Your task to perform on an android device: manage bookmarks in the chrome app Image 0: 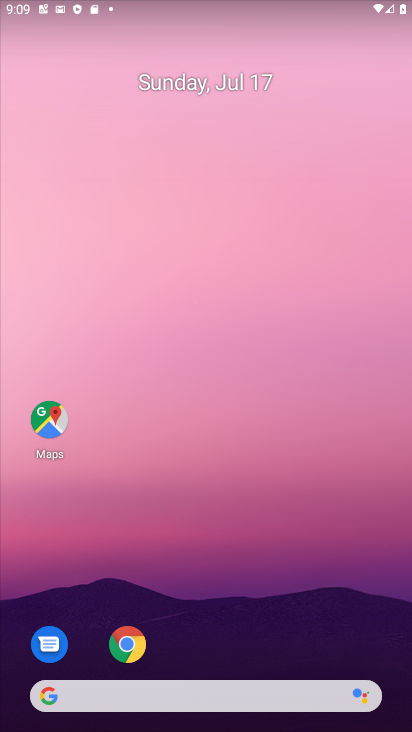
Step 0: drag from (236, 666) to (224, 48)
Your task to perform on an android device: manage bookmarks in the chrome app Image 1: 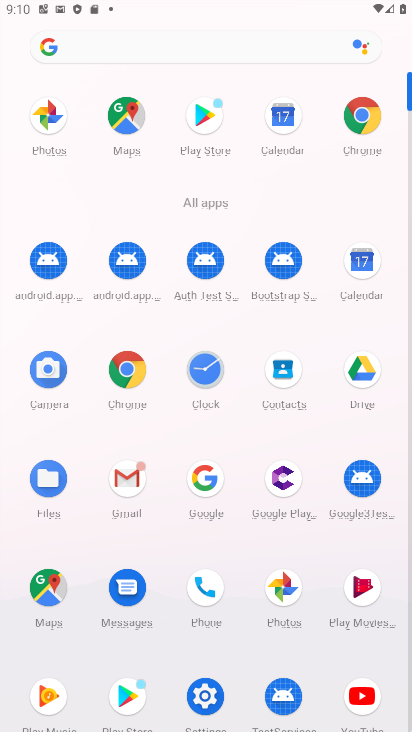
Step 1: click (118, 382)
Your task to perform on an android device: manage bookmarks in the chrome app Image 2: 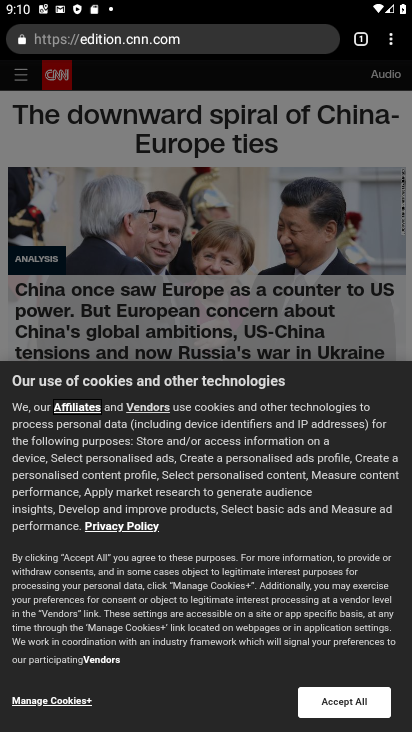
Step 2: click (387, 32)
Your task to perform on an android device: manage bookmarks in the chrome app Image 3: 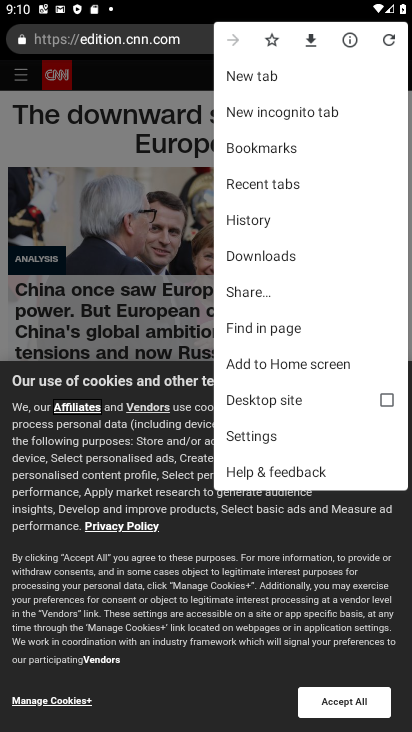
Step 3: click (243, 149)
Your task to perform on an android device: manage bookmarks in the chrome app Image 4: 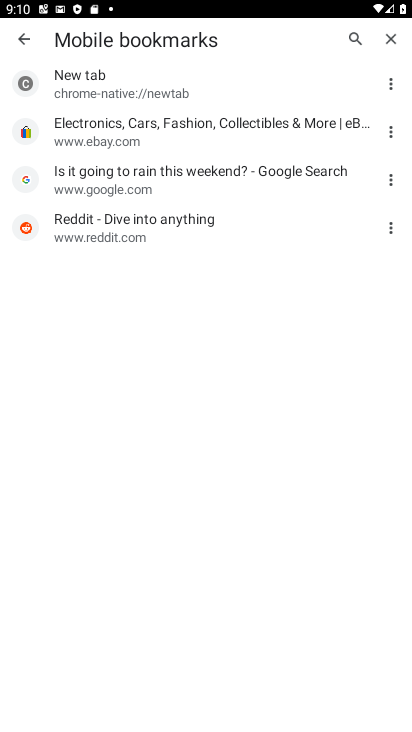
Step 4: click (387, 85)
Your task to perform on an android device: manage bookmarks in the chrome app Image 5: 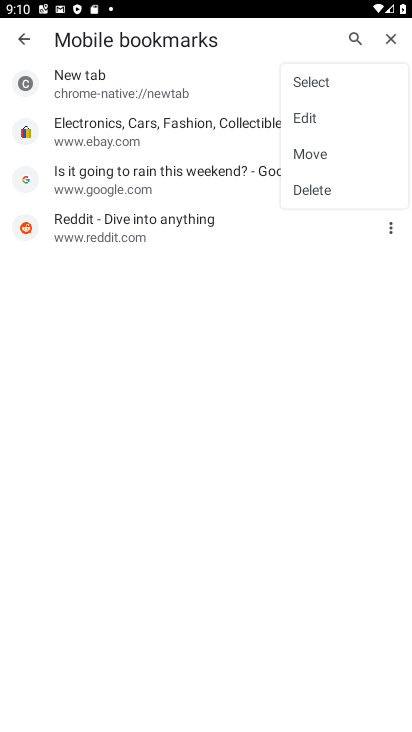
Step 5: click (310, 119)
Your task to perform on an android device: manage bookmarks in the chrome app Image 6: 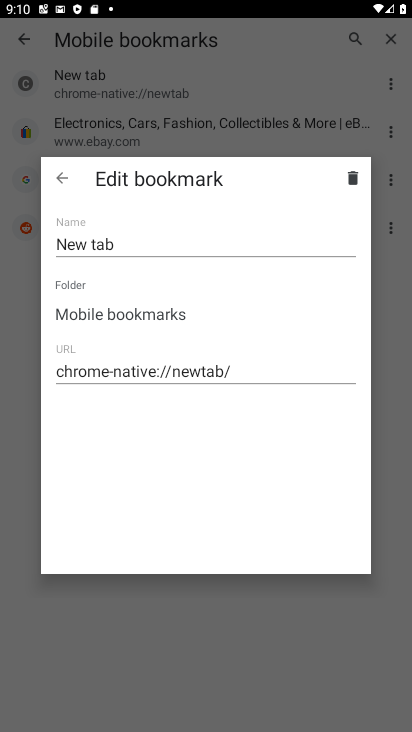
Step 6: task complete